Your task to perform on an android device: visit the assistant section in the google photos Image 0: 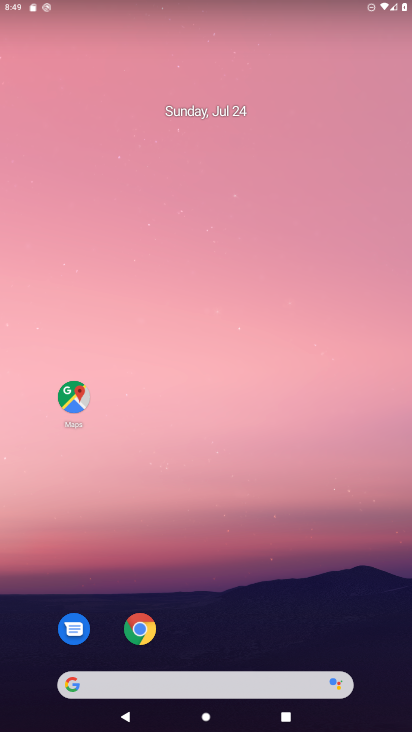
Step 0: drag from (359, 654) to (167, 88)
Your task to perform on an android device: visit the assistant section in the google photos Image 1: 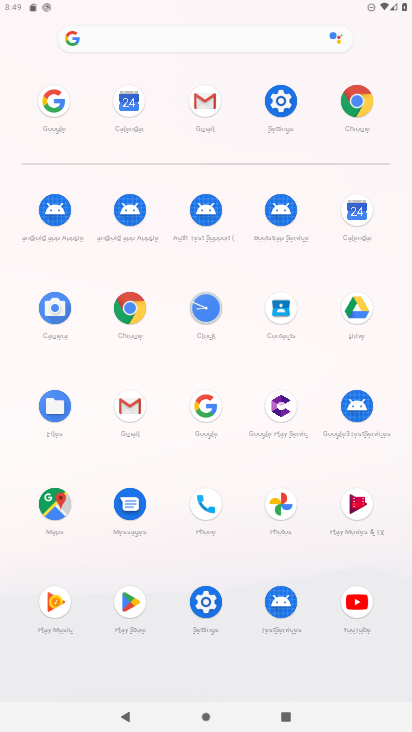
Step 1: click (287, 490)
Your task to perform on an android device: visit the assistant section in the google photos Image 2: 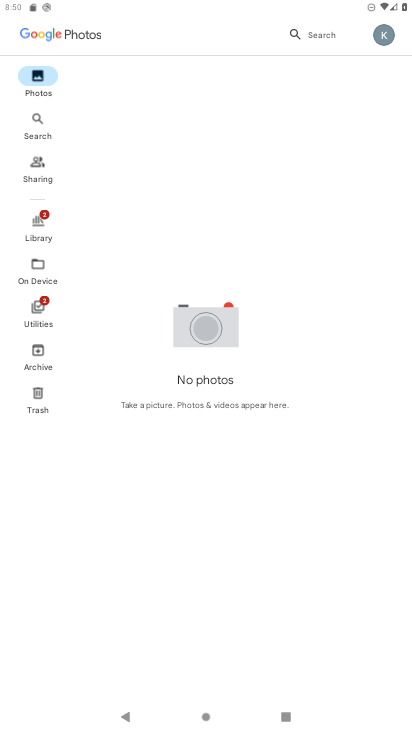
Step 2: task complete